Your task to perform on an android device: check storage Image 0: 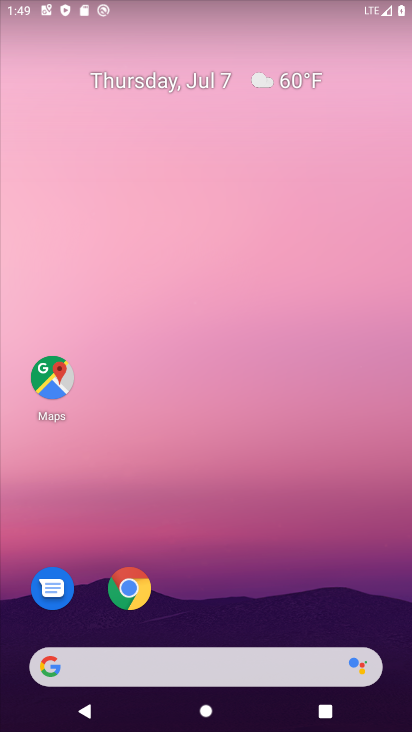
Step 0: drag from (267, 601) to (231, 304)
Your task to perform on an android device: check storage Image 1: 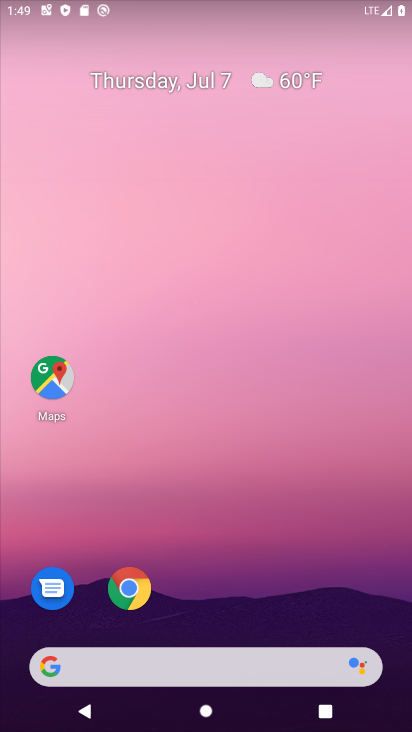
Step 1: drag from (211, 621) to (206, 308)
Your task to perform on an android device: check storage Image 2: 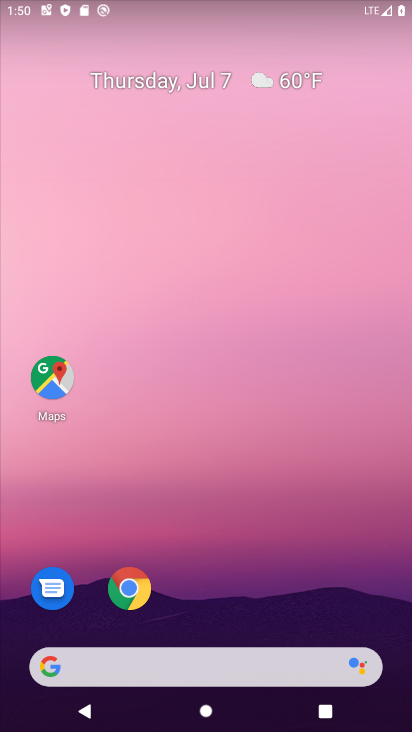
Step 2: drag from (196, 609) to (173, 352)
Your task to perform on an android device: check storage Image 3: 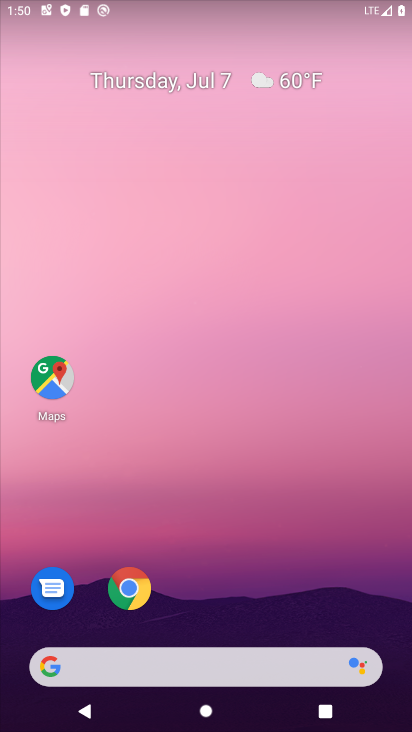
Step 3: drag from (234, 565) to (241, 281)
Your task to perform on an android device: check storage Image 4: 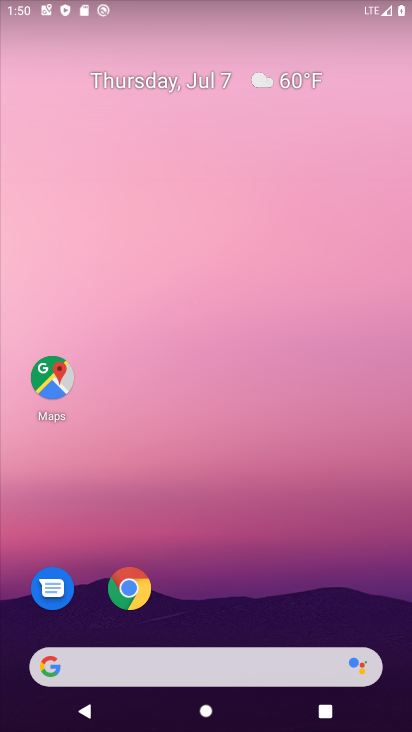
Step 4: drag from (232, 536) to (262, 59)
Your task to perform on an android device: check storage Image 5: 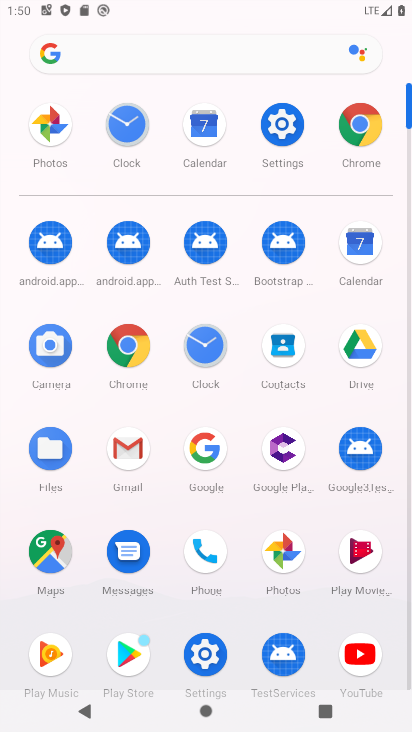
Step 5: click (270, 105)
Your task to perform on an android device: check storage Image 6: 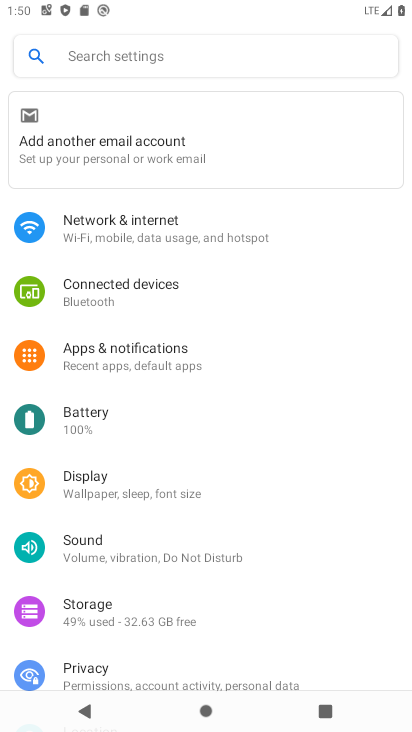
Step 6: click (124, 605)
Your task to perform on an android device: check storage Image 7: 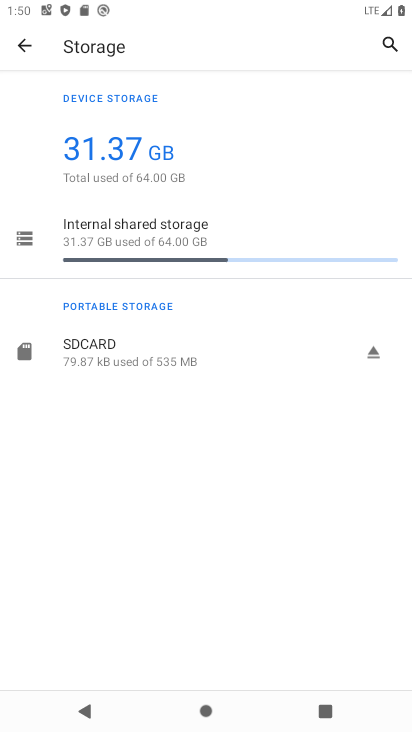
Step 7: task complete